Your task to perform on an android device: check battery use Image 0: 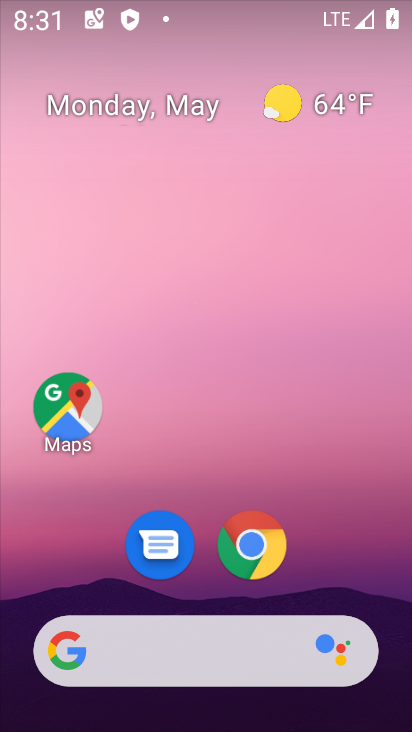
Step 0: drag from (193, 665) to (166, 123)
Your task to perform on an android device: check battery use Image 1: 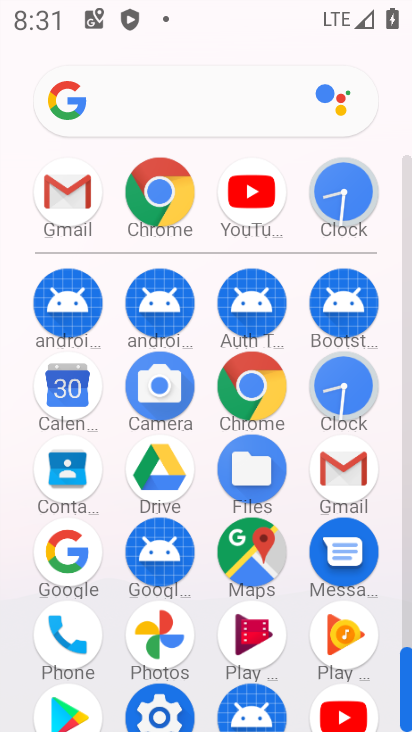
Step 1: click (165, 706)
Your task to perform on an android device: check battery use Image 2: 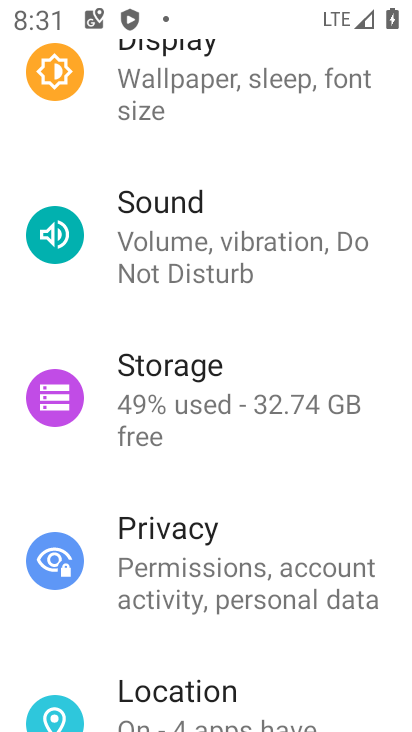
Step 2: drag from (218, 254) to (180, 691)
Your task to perform on an android device: check battery use Image 3: 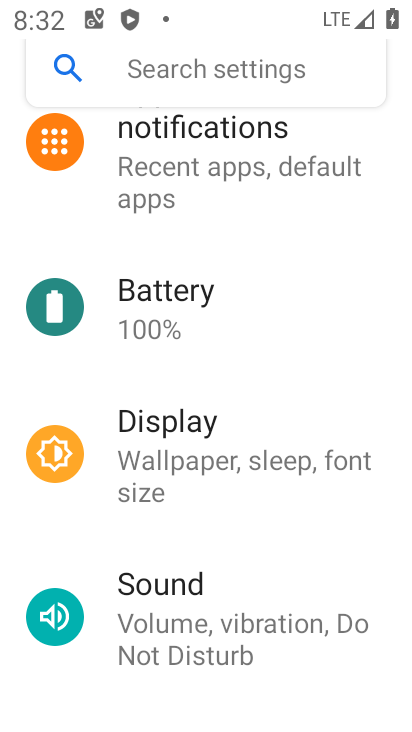
Step 3: click (162, 330)
Your task to perform on an android device: check battery use Image 4: 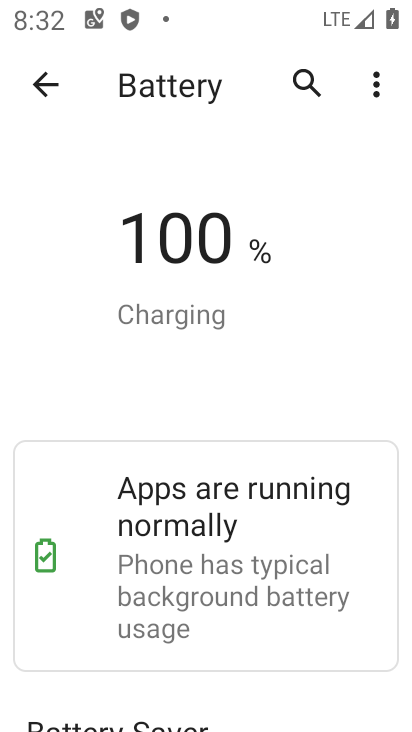
Step 4: click (366, 73)
Your task to perform on an android device: check battery use Image 5: 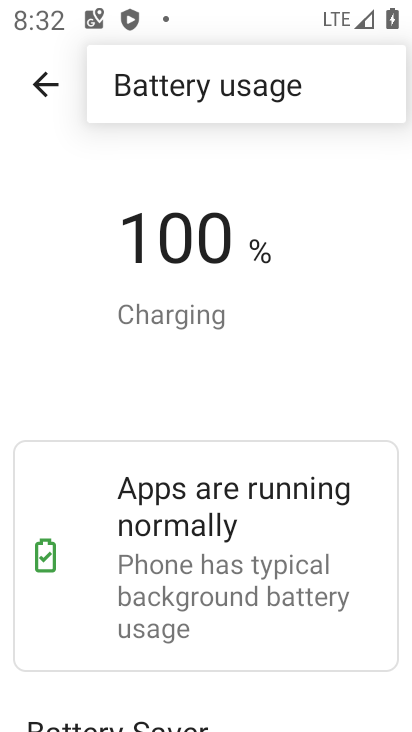
Step 5: click (305, 99)
Your task to perform on an android device: check battery use Image 6: 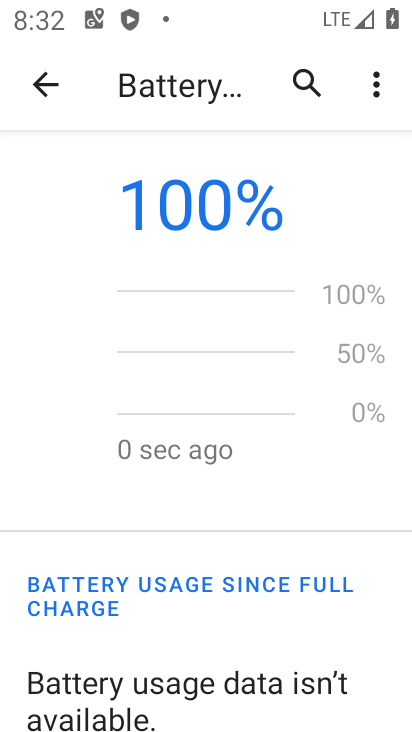
Step 6: task complete